Your task to perform on an android device: set an alarm Image 0: 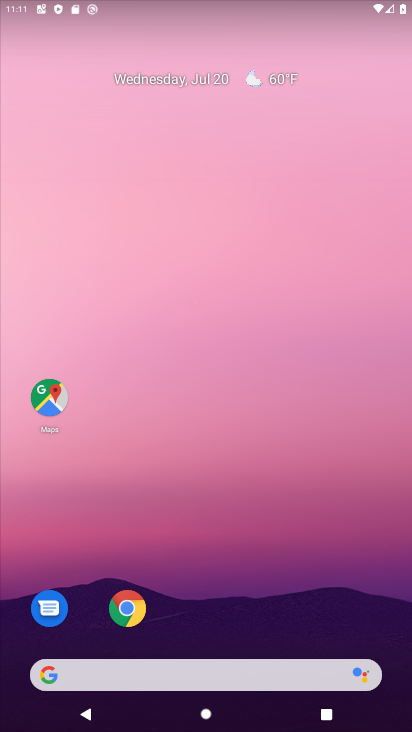
Step 0: drag from (243, 622) to (236, 410)
Your task to perform on an android device: set an alarm Image 1: 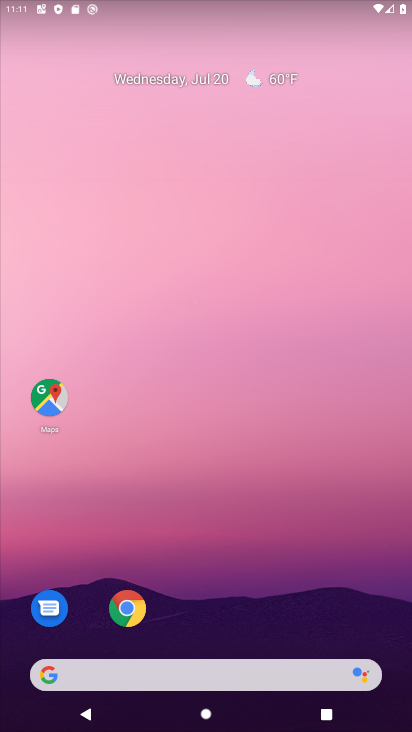
Step 1: drag from (237, 578) to (229, 293)
Your task to perform on an android device: set an alarm Image 2: 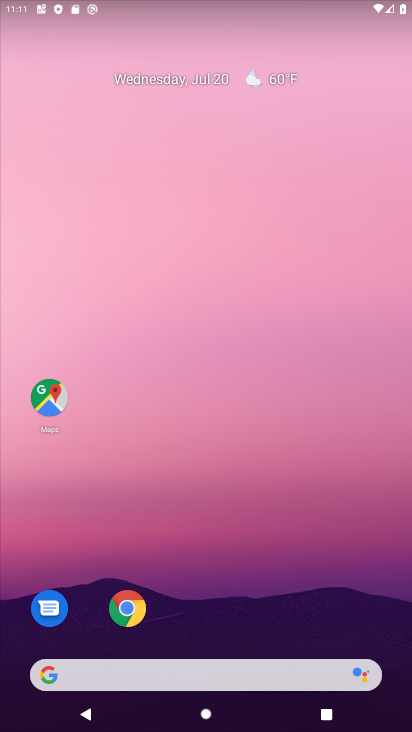
Step 2: drag from (229, 633) to (229, 259)
Your task to perform on an android device: set an alarm Image 3: 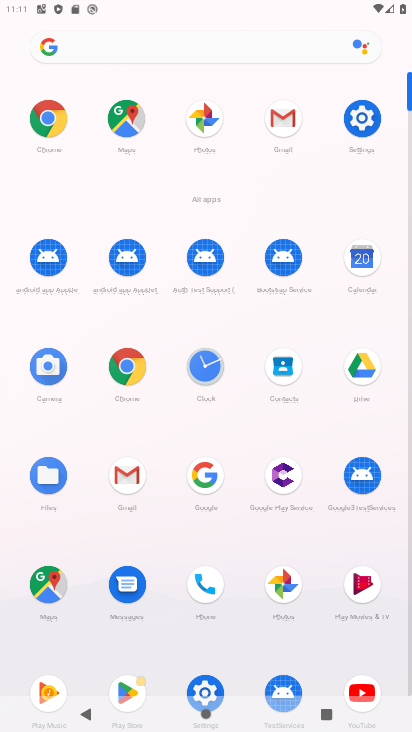
Step 3: click (199, 368)
Your task to perform on an android device: set an alarm Image 4: 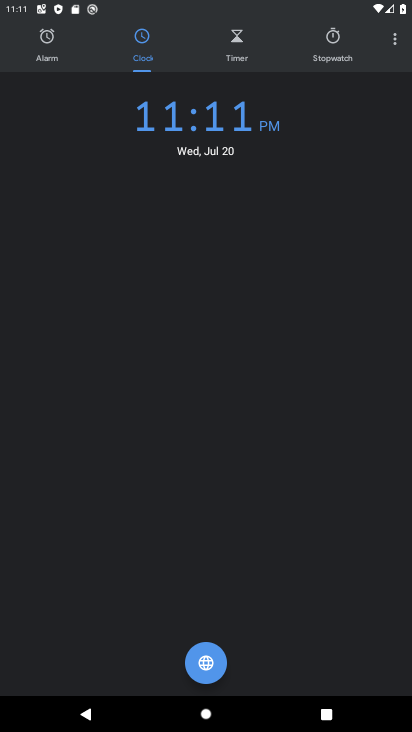
Step 4: click (31, 42)
Your task to perform on an android device: set an alarm Image 5: 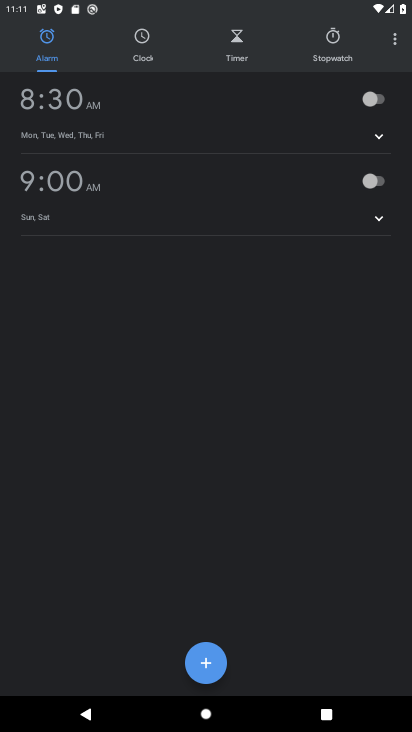
Step 5: click (203, 667)
Your task to perform on an android device: set an alarm Image 6: 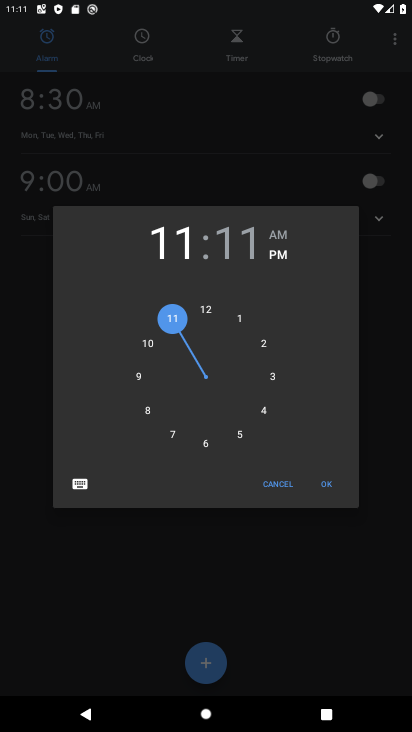
Step 6: click (324, 485)
Your task to perform on an android device: set an alarm Image 7: 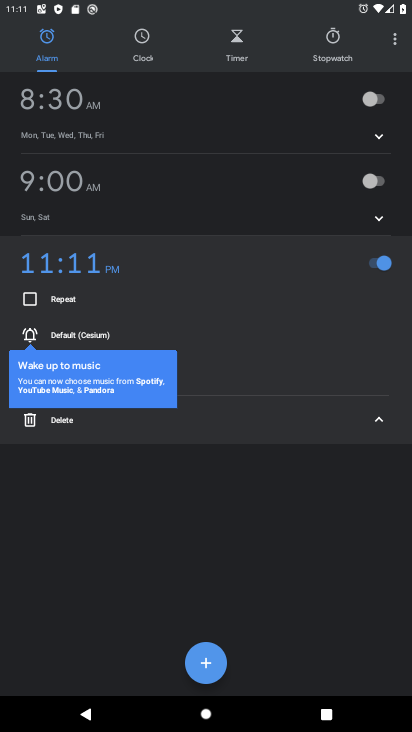
Step 7: click (381, 414)
Your task to perform on an android device: set an alarm Image 8: 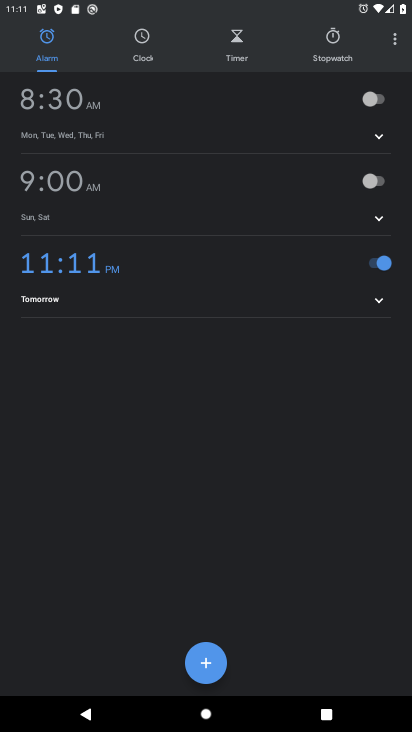
Step 8: task complete